Your task to perform on an android device: move an email to a new category in the gmail app Image 0: 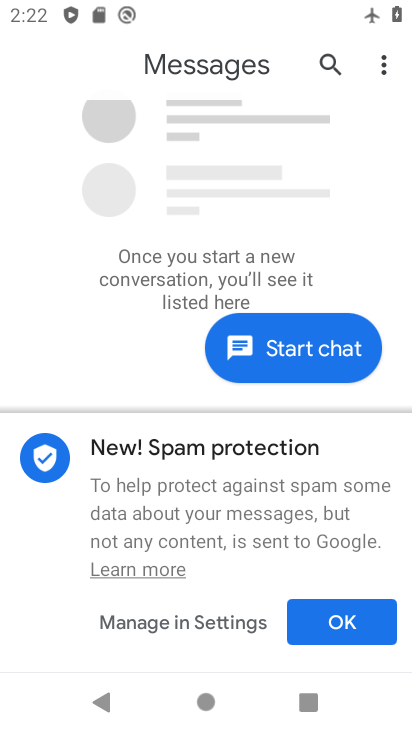
Step 0: press home button
Your task to perform on an android device: move an email to a new category in the gmail app Image 1: 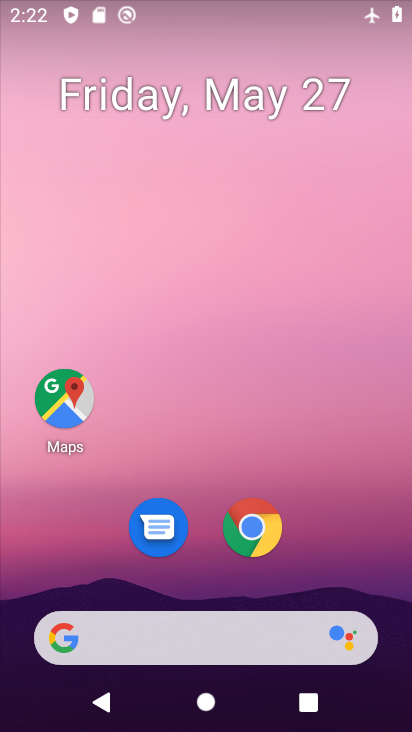
Step 1: drag from (243, 702) to (304, 18)
Your task to perform on an android device: move an email to a new category in the gmail app Image 2: 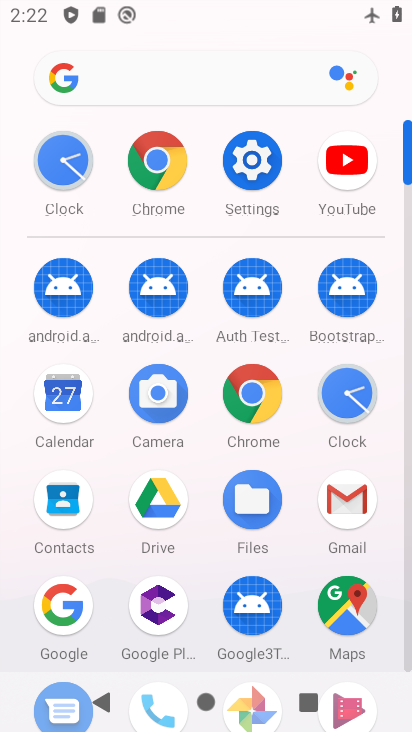
Step 2: click (350, 496)
Your task to perform on an android device: move an email to a new category in the gmail app Image 3: 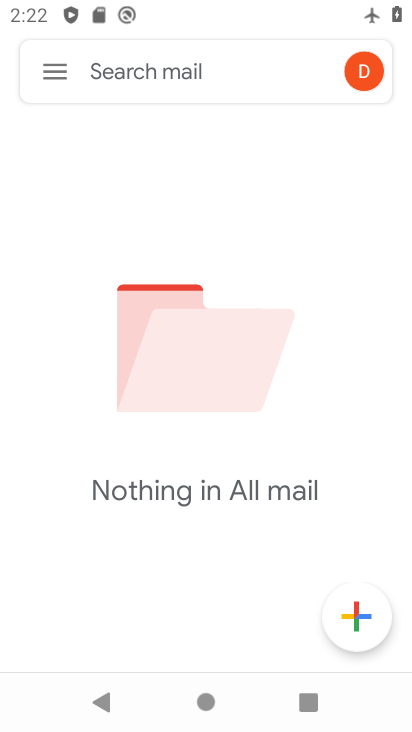
Step 3: task complete